Your task to perform on an android device: open a new tab in the chrome app Image 0: 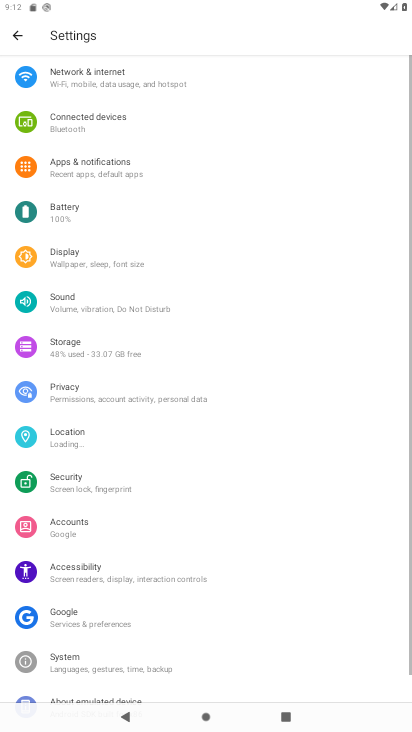
Step 0: press home button
Your task to perform on an android device: open a new tab in the chrome app Image 1: 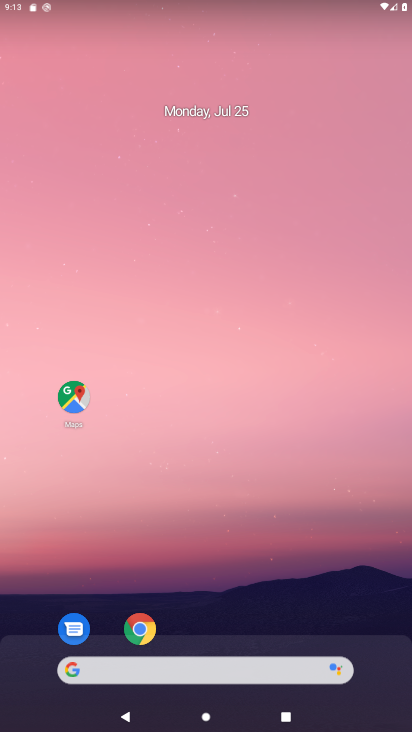
Step 1: click (139, 630)
Your task to perform on an android device: open a new tab in the chrome app Image 2: 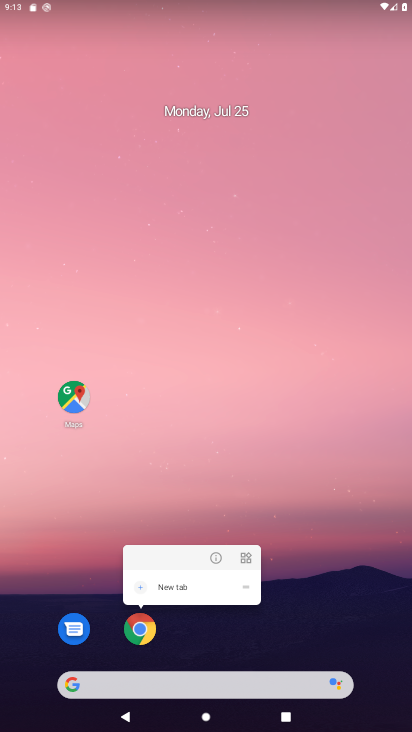
Step 2: click (140, 629)
Your task to perform on an android device: open a new tab in the chrome app Image 3: 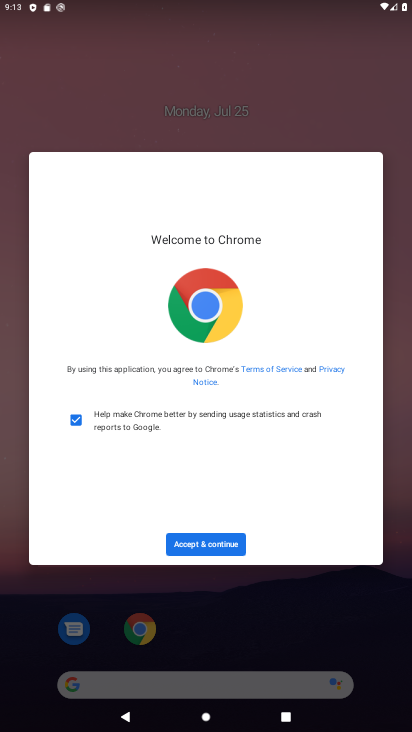
Step 3: click (217, 539)
Your task to perform on an android device: open a new tab in the chrome app Image 4: 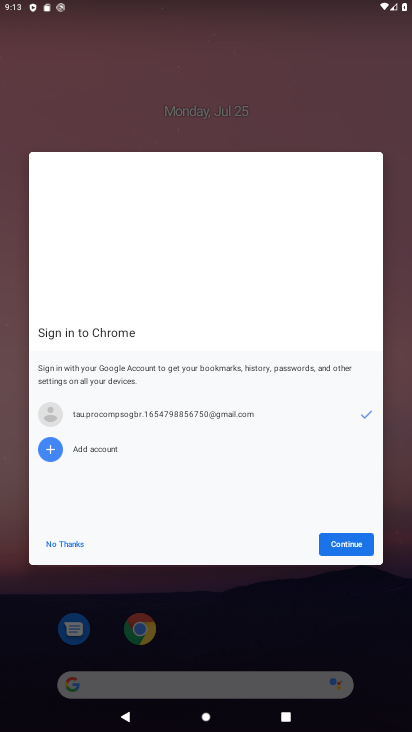
Step 4: click (371, 537)
Your task to perform on an android device: open a new tab in the chrome app Image 5: 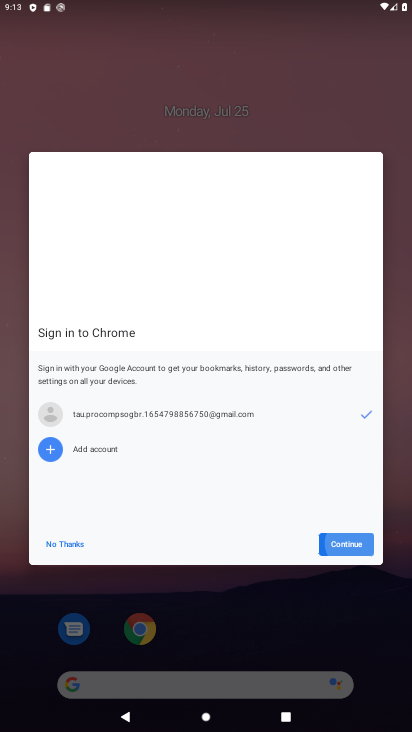
Step 5: click (367, 538)
Your task to perform on an android device: open a new tab in the chrome app Image 6: 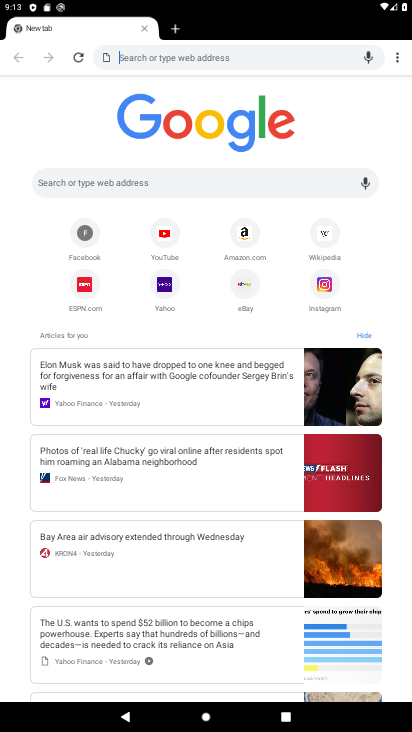
Step 6: task complete